Your task to perform on an android device: check google app version Image 0: 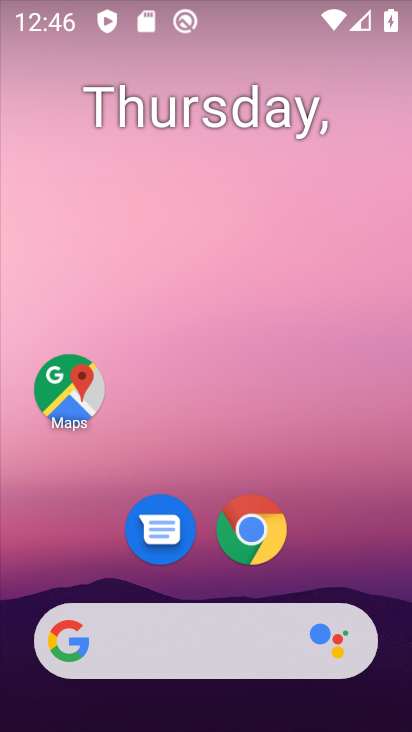
Step 0: drag from (175, 433) to (245, 78)
Your task to perform on an android device: check google app version Image 1: 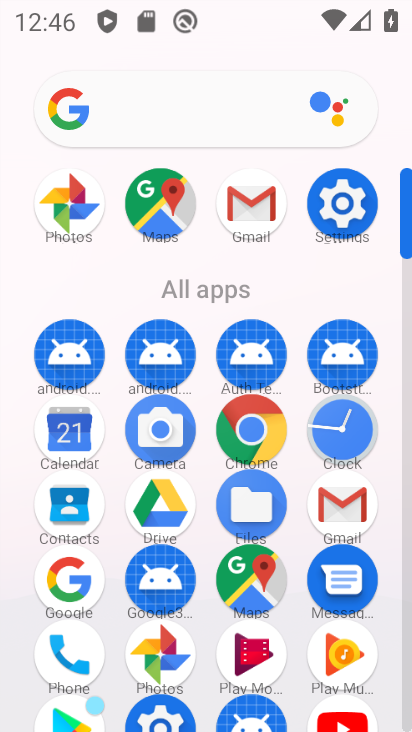
Step 1: click (151, 713)
Your task to perform on an android device: check google app version Image 2: 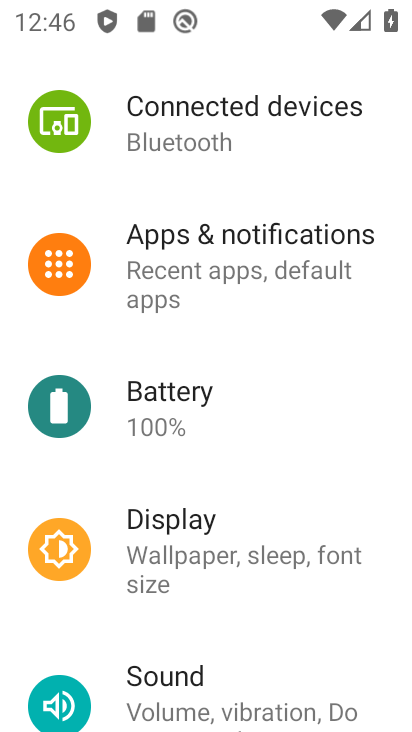
Step 2: click (239, 274)
Your task to perform on an android device: check google app version Image 3: 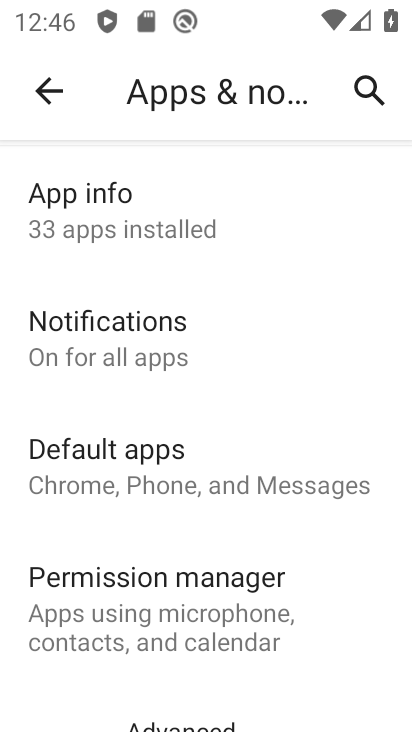
Step 3: click (208, 226)
Your task to perform on an android device: check google app version Image 4: 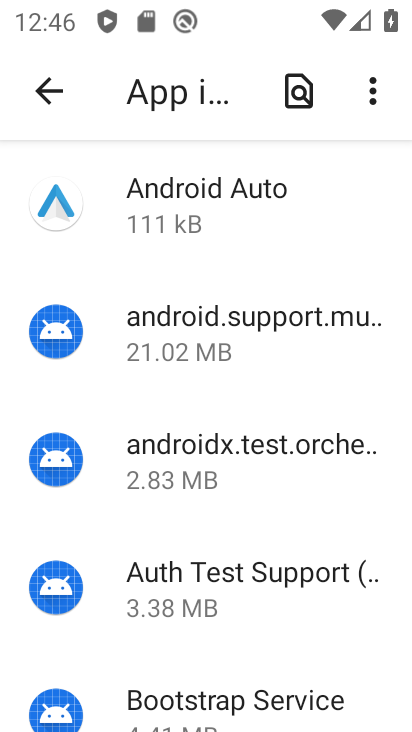
Step 4: drag from (217, 587) to (308, 141)
Your task to perform on an android device: check google app version Image 5: 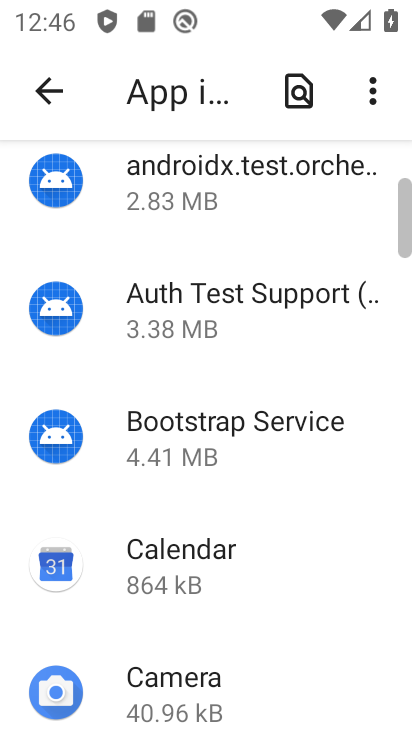
Step 5: drag from (186, 651) to (297, 236)
Your task to perform on an android device: check google app version Image 6: 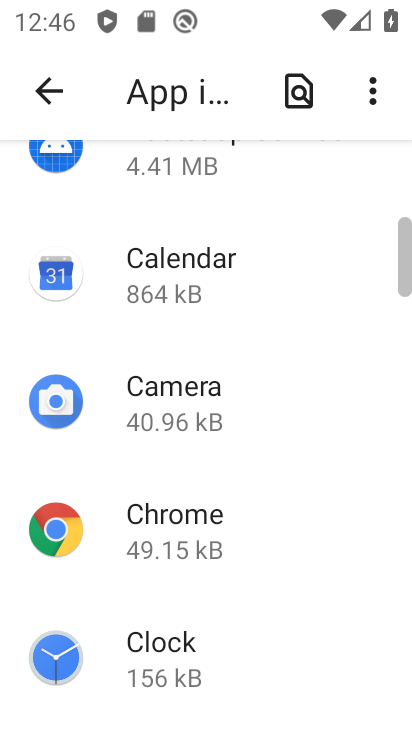
Step 6: drag from (206, 645) to (300, 246)
Your task to perform on an android device: check google app version Image 7: 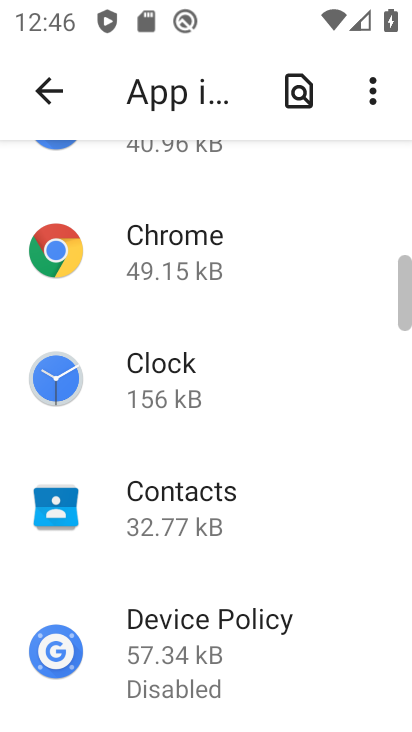
Step 7: drag from (188, 691) to (296, 264)
Your task to perform on an android device: check google app version Image 8: 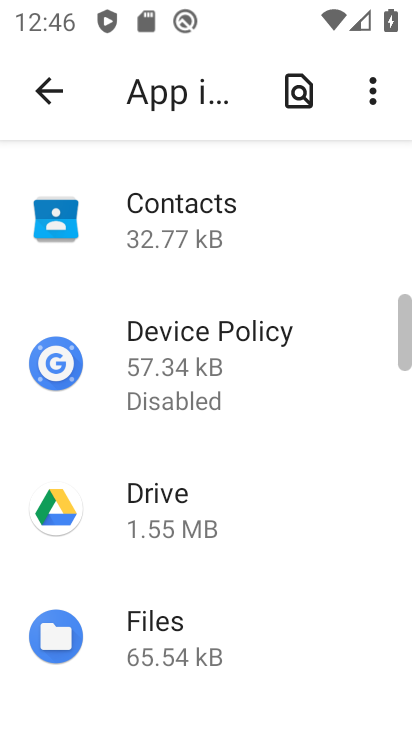
Step 8: drag from (223, 595) to (257, 317)
Your task to perform on an android device: check google app version Image 9: 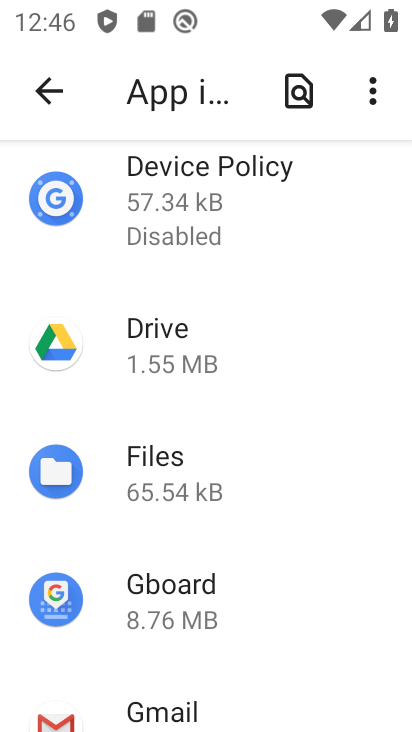
Step 9: drag from (150, 642) to (273, 229)
Your task to perform on an android device: check google app version Image 10: 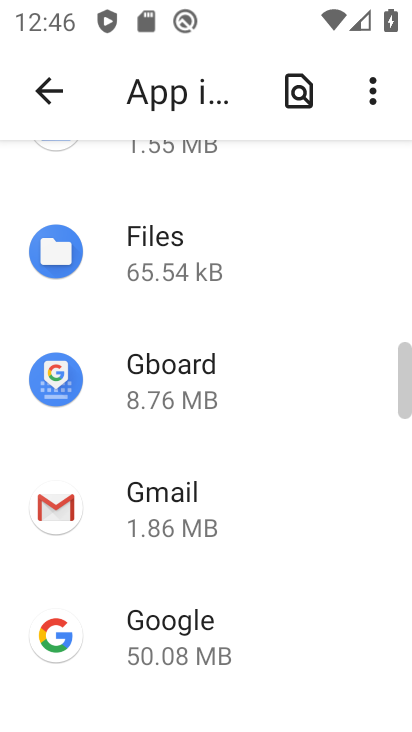
Step 10: click (169, 631)
Your task to perform on an android device: check google app version Image 11: 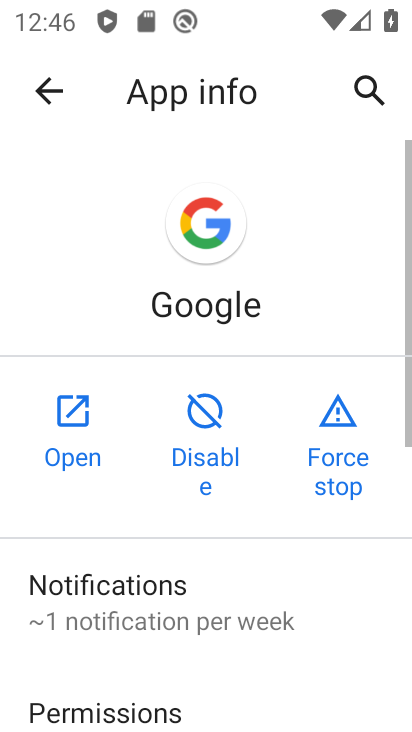
Step 11: drag from (232, 637) to (367, 144)
Your task to perform on an android device: check google app version Image 12: 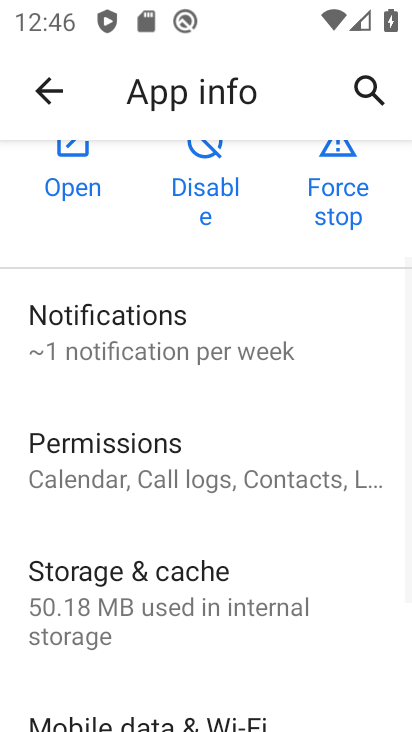
Step 12: drag from (236, 545) to (372, 152)
Your task to perform on an android device: check google app version Image 13: 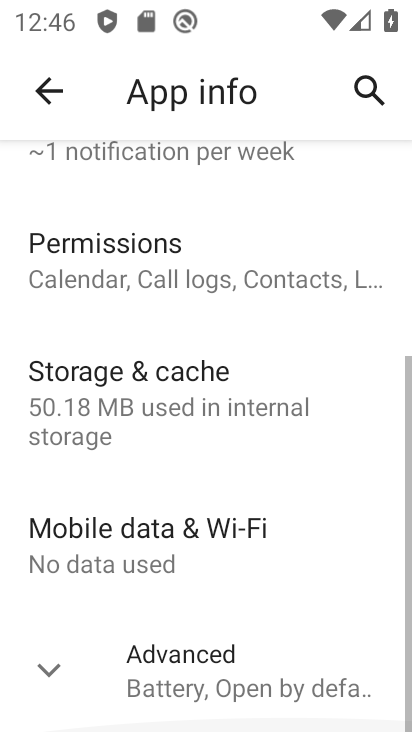
Step 13: click (283, 672)
Your task to perform on an android device: check google app version Image 14: 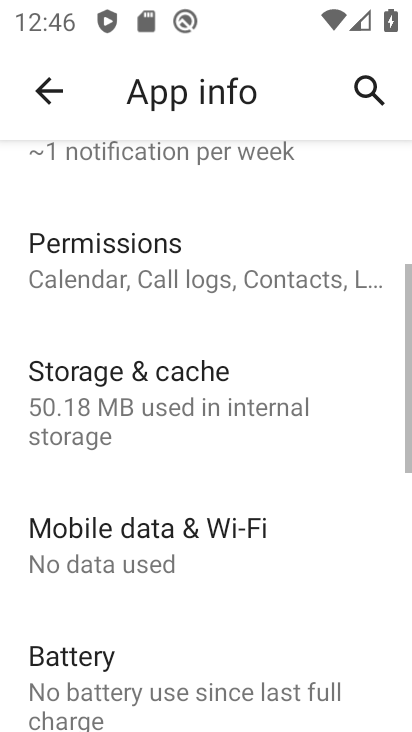
Step 14: task complete